Your task to perform on an android device: Search for Italian restaurants on Maps Image 0: 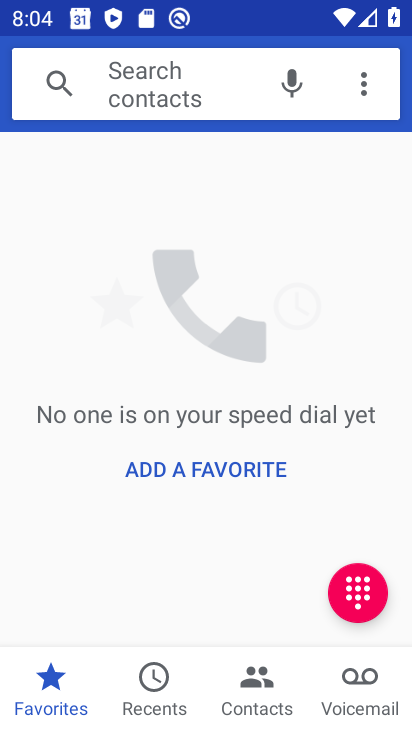
Step 0: press back button
Your task to perform on an android device: Search for Italian restaurants on Maps Image 1: 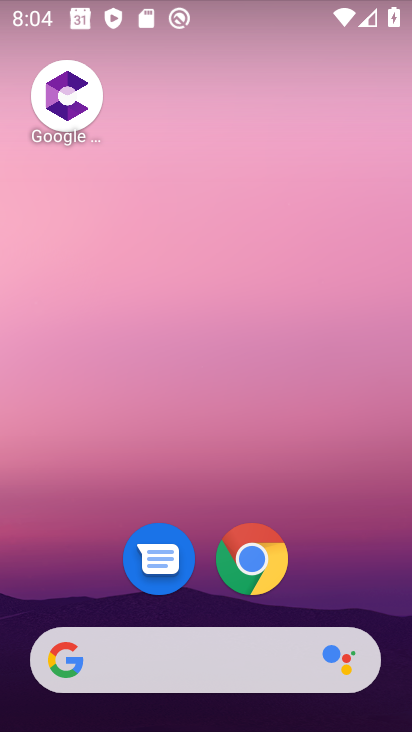
Step 1: drag from (191, 601) to (348, 43)
Your task to perform on an android device: Search for Italian restaurants on Maps Image 2: 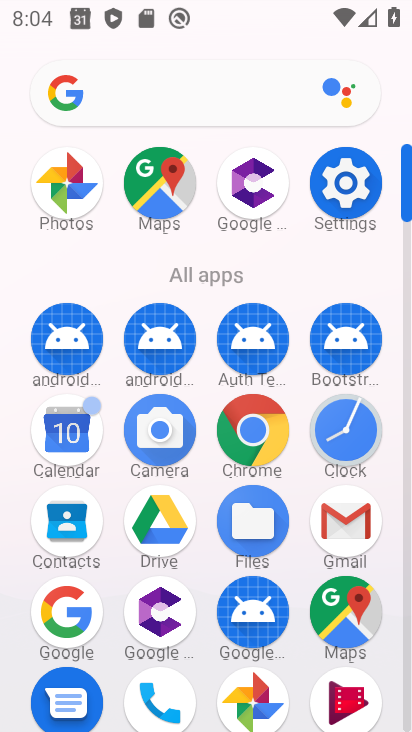
Step 2: click (350, 613)
Your task to perform on an android device: Search for Italian restaurants on Maps Image 3: 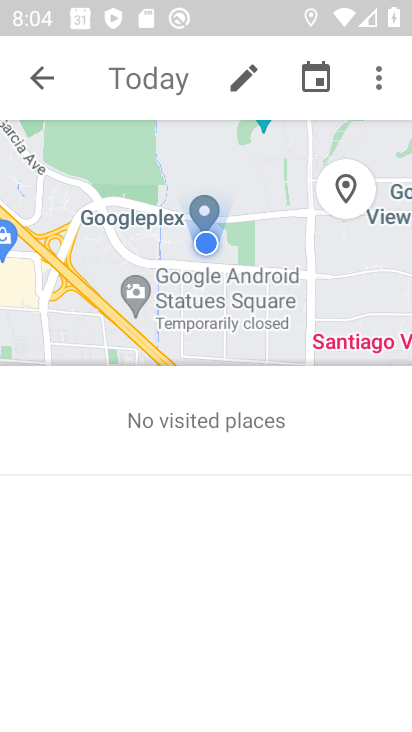
Step 3: click (33, 74)
Your task to perform on an android device: Search for Italian restaurants on Maps Image 4: 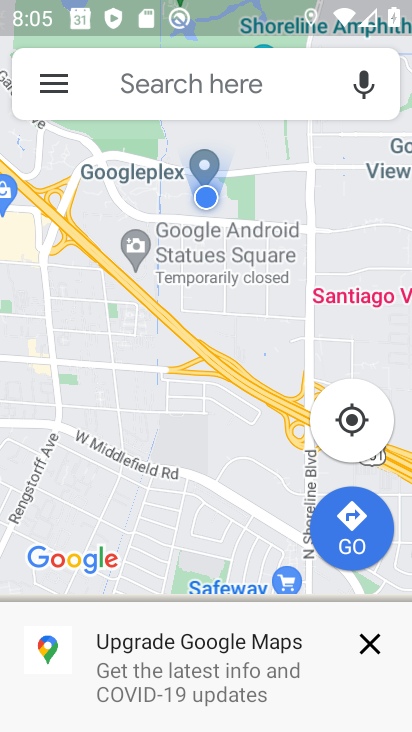
Step 4: click (229, 90)
Your task to perform on an android device: Search for Italian restaurants on Maps Image 5: 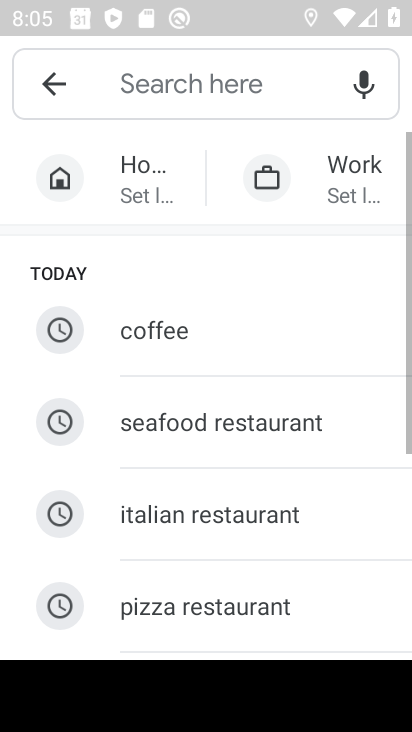
Step 5: click (162, 544)
Your task to perform on an android device: Search for Italian restaurants on Maps Image 6: 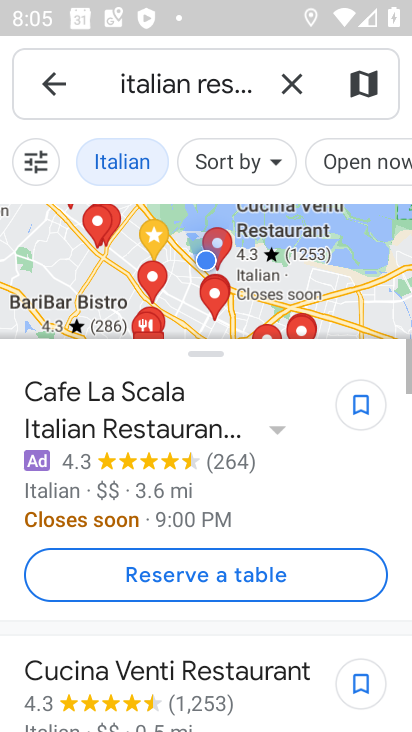
Step 6: task complete